Your task to perform on an android device: turn on priority inbox in the gmail app Image 0: 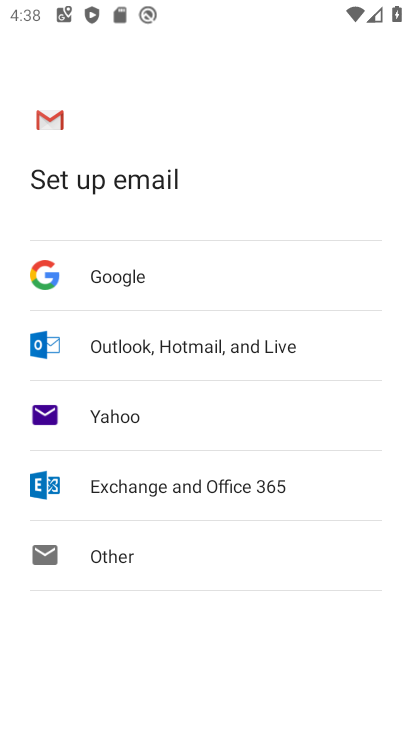
Step 0: press back button
Your task to perform on an android device: turn on priority inbox in the gmail app Image 1: 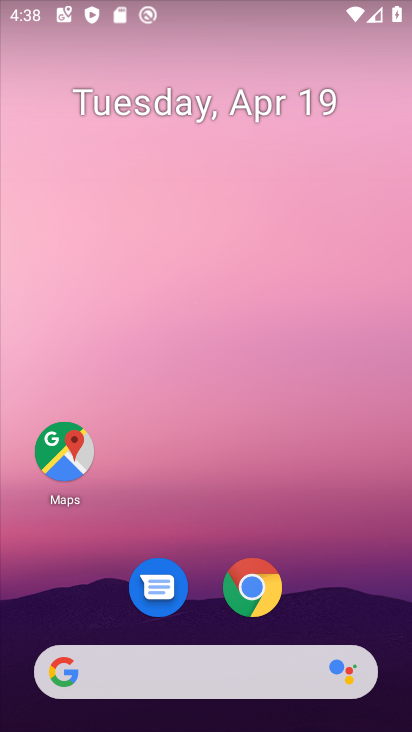
Step 1: drag from (340, 514) to (292, 33)
Your task to perform on an android device: turn on priority inbox in the gmail app Image 2: 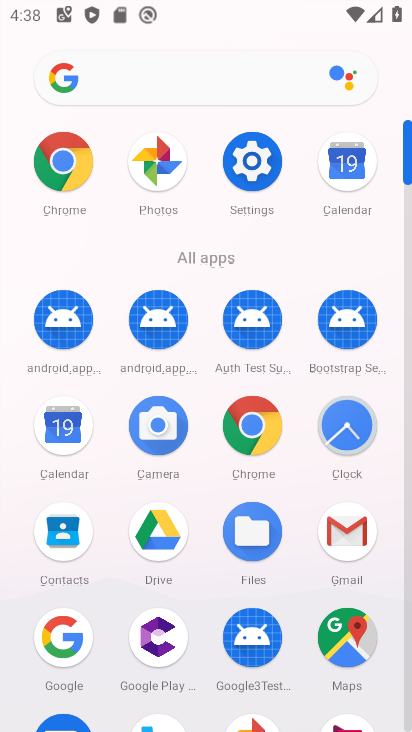
Step 2: drag from (9, 356) to (0, 174)
Your task to perform on an android device: turn on priority inbox in the gmail app Image 3: 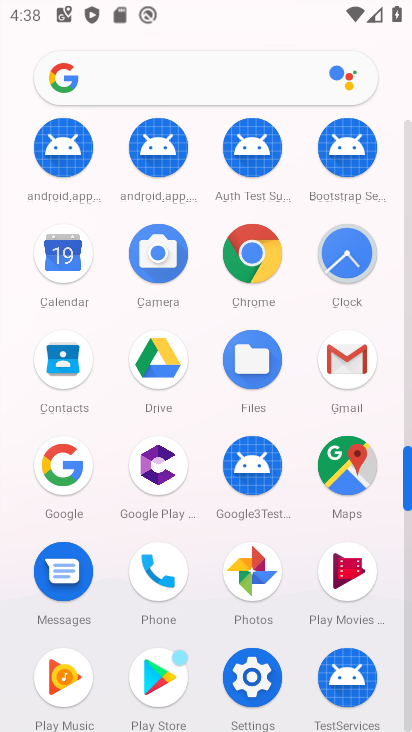
Step 3: drag from (9, 525) to (7, 253)
Your task to perform on an android device: turn on priority inbox in the gmail app Image 4: 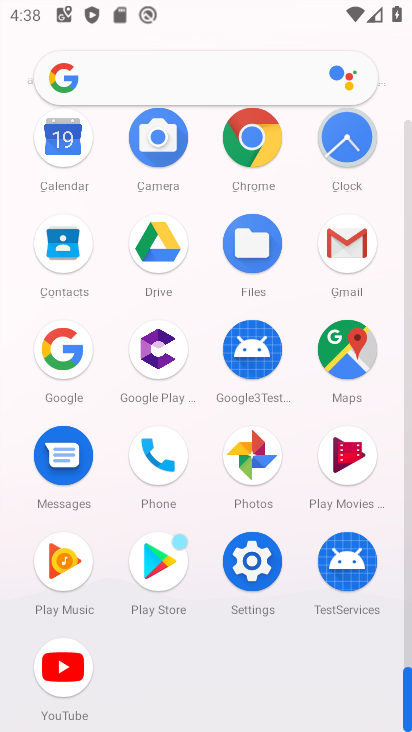
Step 4: click (346, 244)
Your task to perform on an android device: turn on priority inbox in the gmail app Image 5: 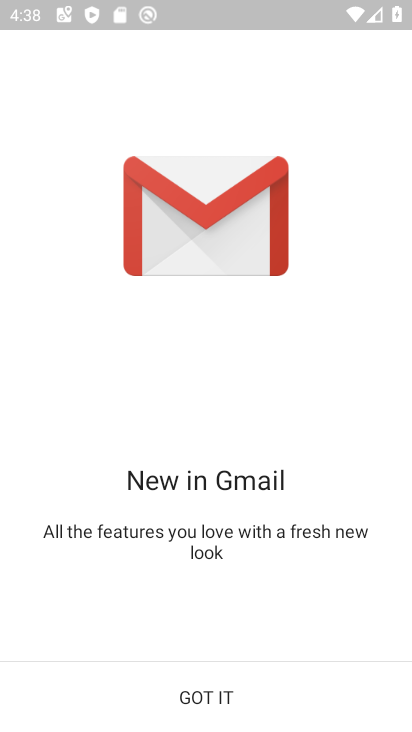
Step 5: click (205, 672)
Your task to perform on an android device: turn on priority inbox in the gmail app Image 6: 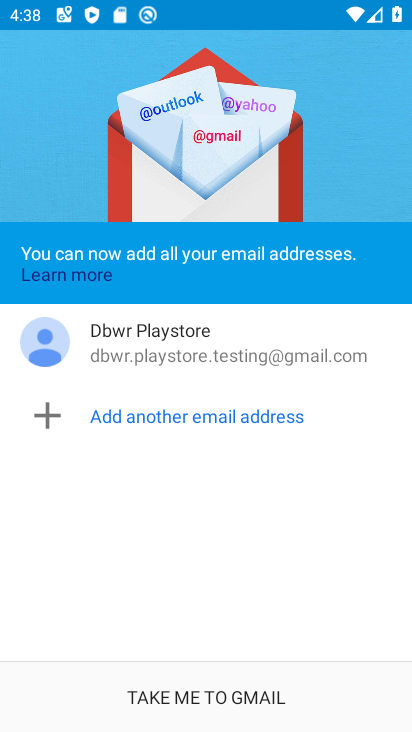
Step 6: click (214, 687)
Your task to perform on an android device: turn on priority inbox in the gmail app Image 7: 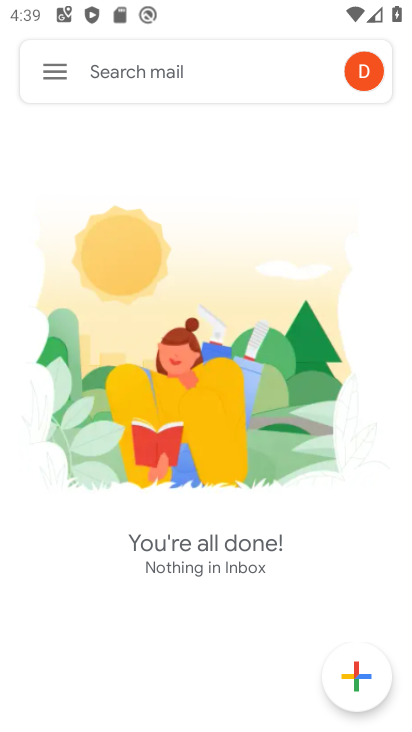
Step 7: click (57, 72)
Your task to perform on an android device: turn on priority inbox in the gmail app Image 8: 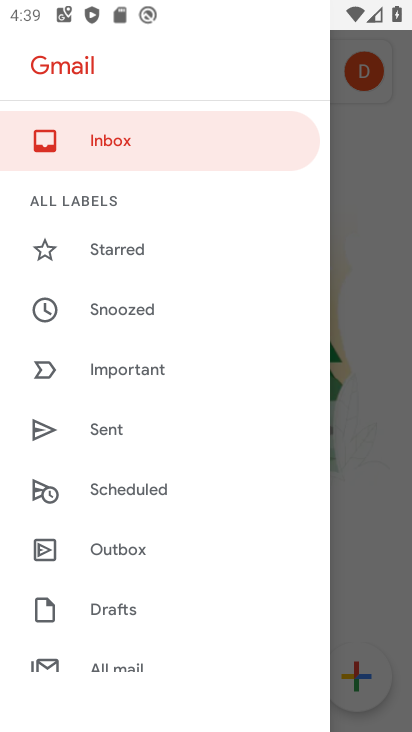
Step 8: drag from (179, 495) to (175, 165)
Your task to perform on an android device: turn on priority inbox in the gmail app Image 9: 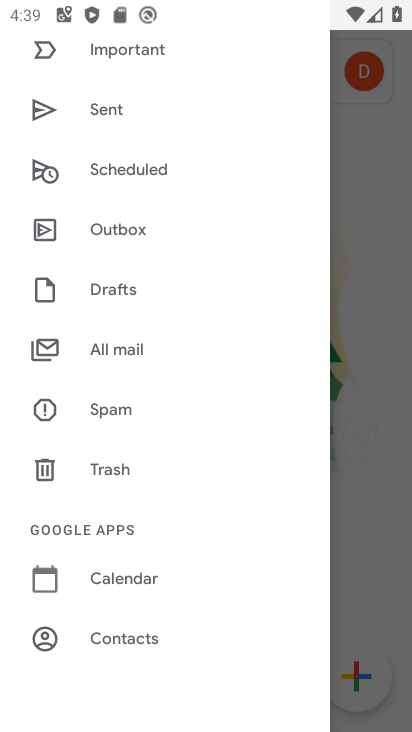
Step 9: drag from (165, 595) to (178, 159)
Your task to perform on an android device: turn on priority inbox in the gmail app Image 10: 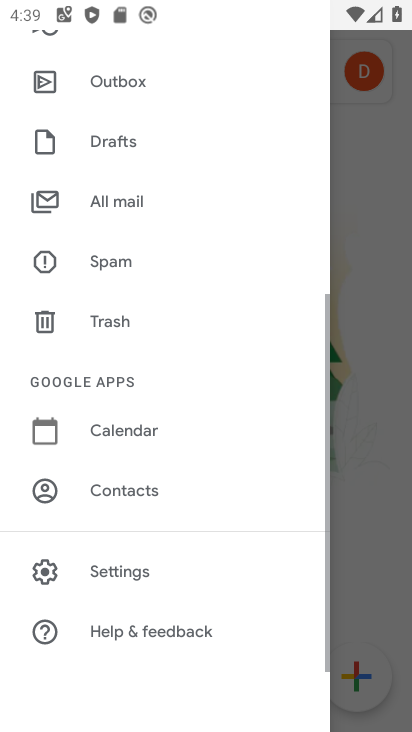
Step 10: click (121, 575)
Your task to perform on an android device: turn on priority inbox in the gmail app Image 11: 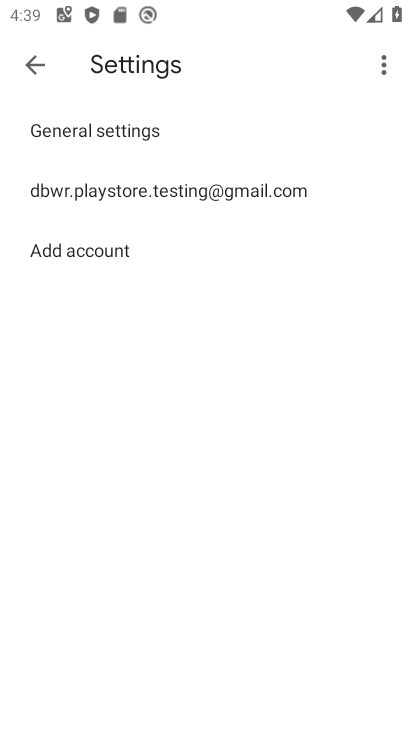
Step 11: click (135, 177)
Your task to perform on an android device: turn on priority inbox in the gmail app Image 12: 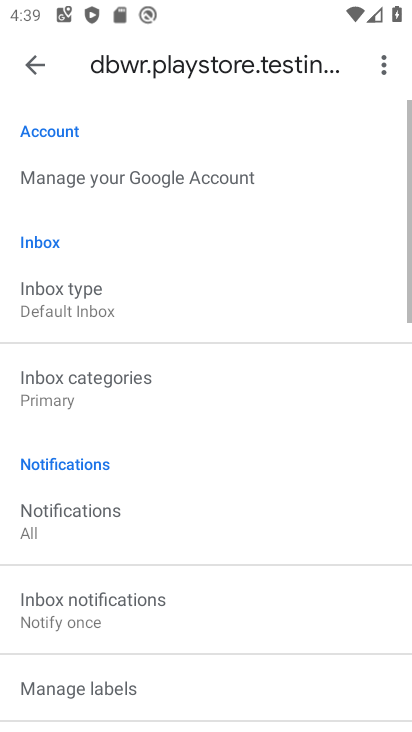
Step 12: click (119, 329)
Your task to perform on an android device: turn on priority inbox in the gmail app Image 13: 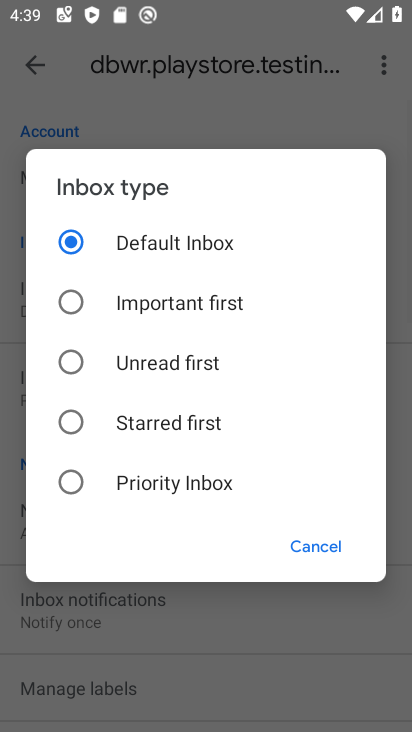
Step 13: click (138, 475)
Your task to perform on an android device: turn on priority inbox in the gmail app Image 14: 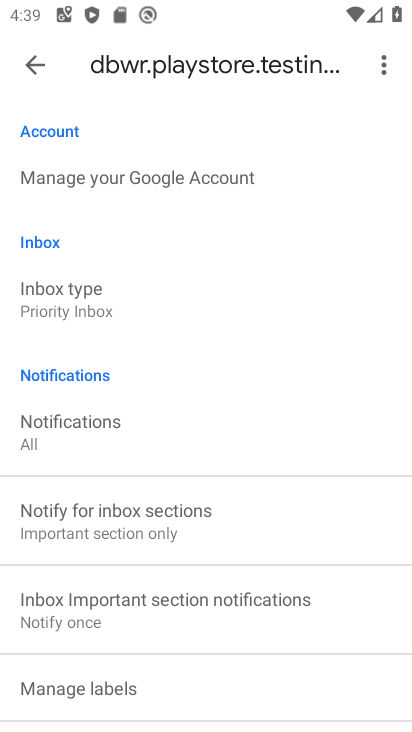
Step 14: drag from (299, 583) to (280, 279)
Your task to perform on an android device: turn on priority inbox in the gmail app Image 15: 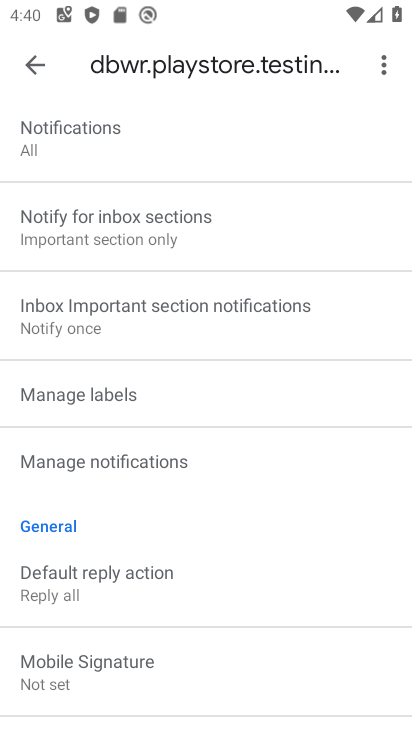
Step 15: drag from (241, 571) to (237, 185)
Your task to perform on an android device: turn on priority inbox in the gmail app Image 16: 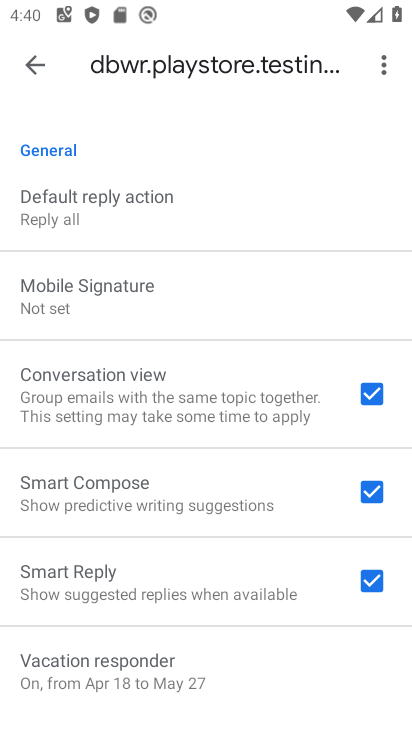
Step 16: drag from (173, 480) to (191, 168)
Your task to perform on an android device: turn on priority inbox in the gmail app Image 17: 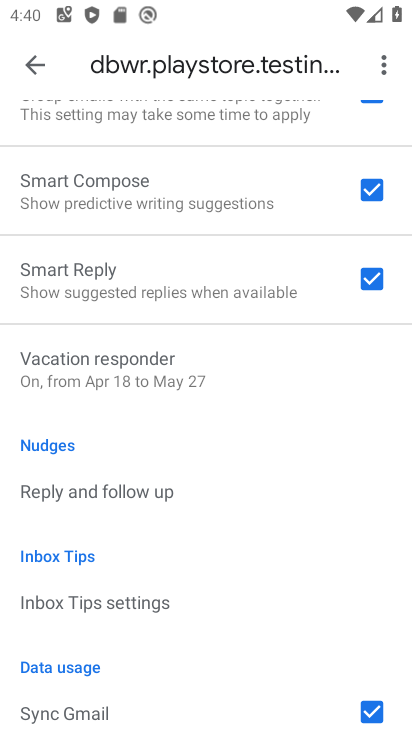
Step 17: click (26, 57)
Your task to perform on an android device: turn on priority inbox in the gmail app Image 18: 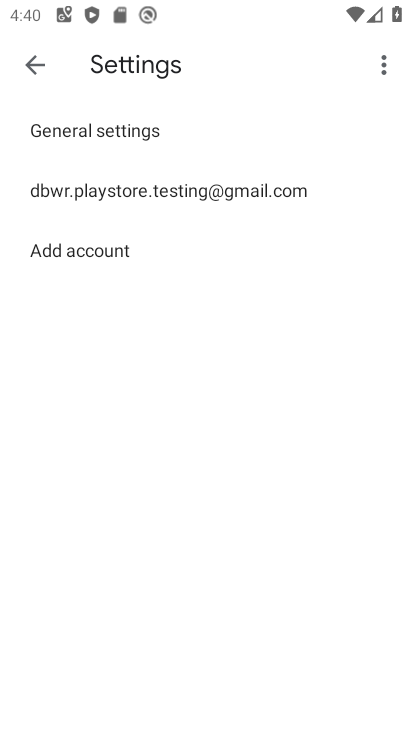
Step 18: click (72, 187)
Your task to perform on an android device: turn on priority inbox in the gmail app Image 19: 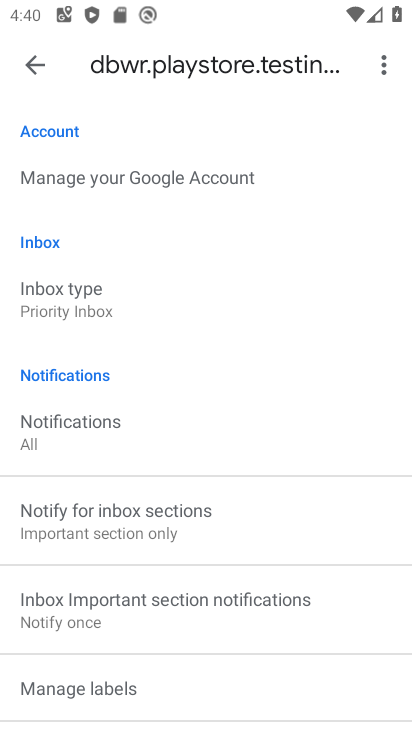
Step 19: task complete